Your task to perform on an android device: Search for pizza restaurants on Maps Image 0: 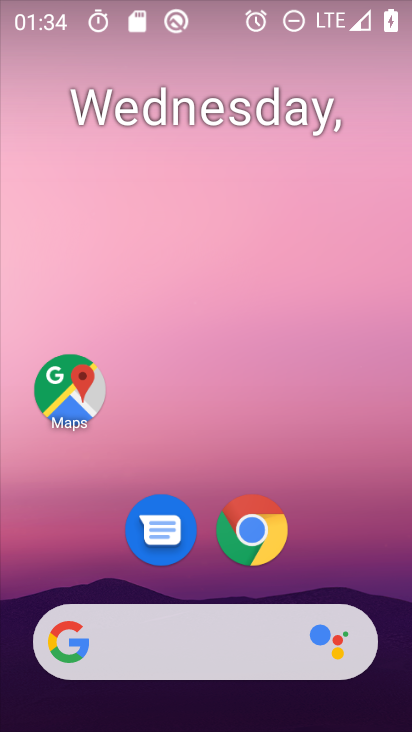
Step 0: drag from (294, 627) to (310, 25)
Your task to perform on an android device: Search for pizza restaurants on Maps Image 1: 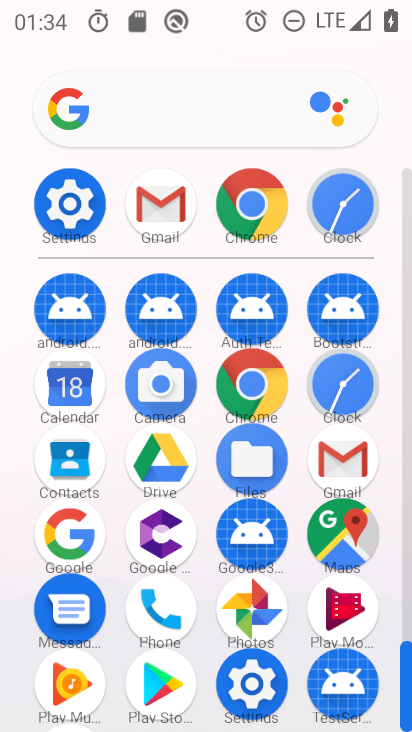
Step 1: click (345, 544)
Your task to perform on an android device: Search for pizza restaurants on Maps Image 2: 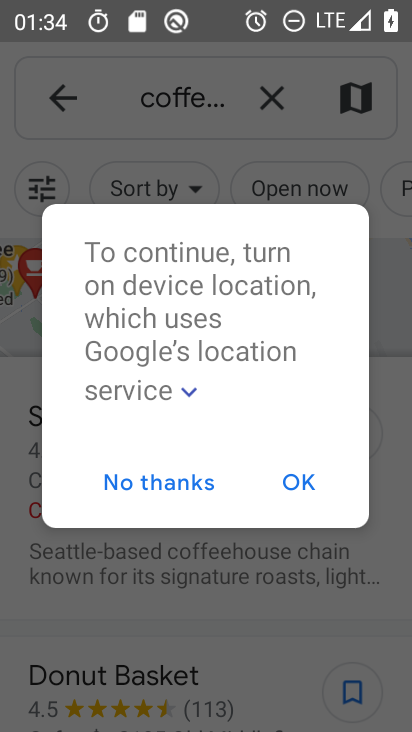
Step 2: click (301, 481)
Your task to perform on an android device: Search for pizza restaurants on Maps Image 3: 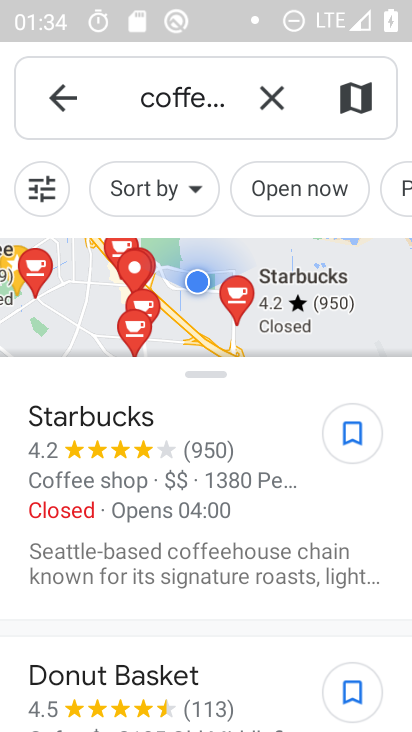
Step 3: press back button
Your task to perform on an android device: Search for pizza restaurants on Maps Image 4: 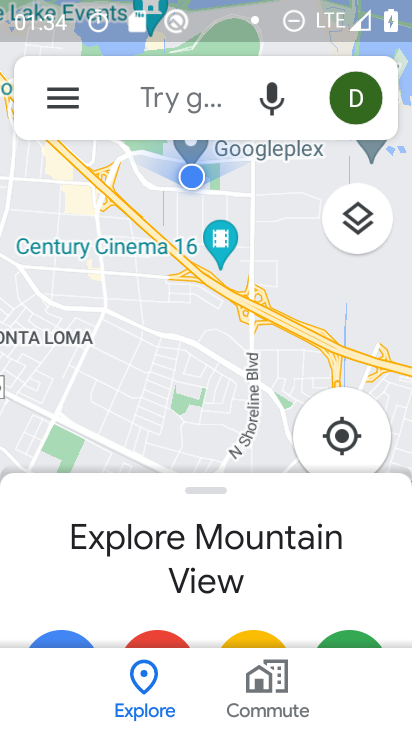
Step 4: click (195, 97)
Your task to perform on an android device: Search for pizza restaurants on Maps Image 5: 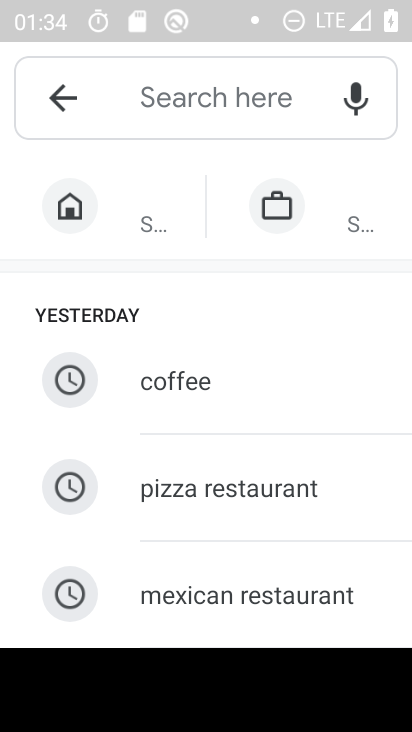
Step 5: click (308, 506)
Your task to perform on an android device: Search for pizza restaurants on Maps Image 6: 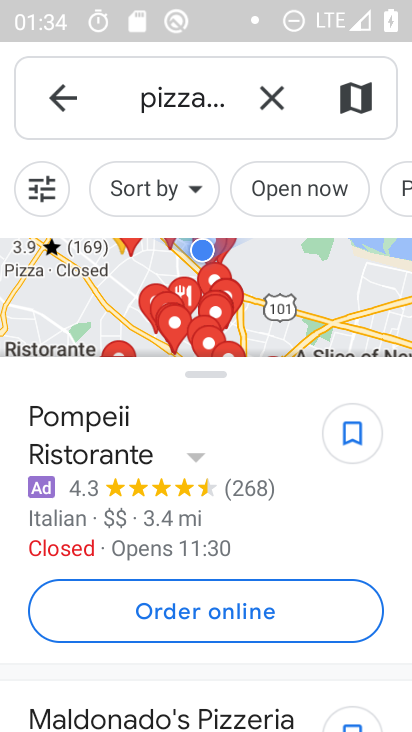
Step 6: task complete